Your task to perform on an android device: Search for seafood restaurants on Google Maps Image 0: 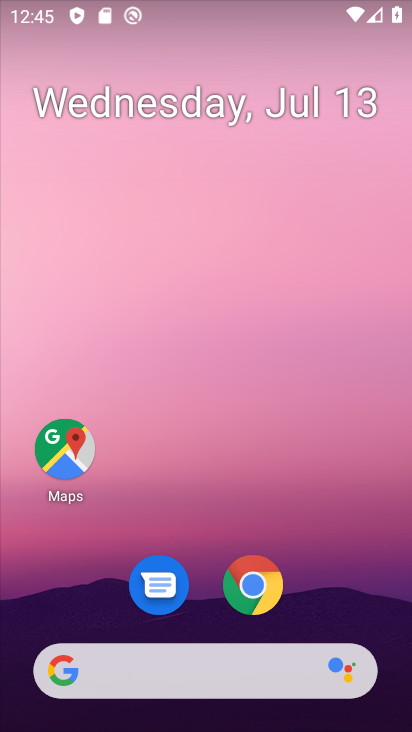
Step 0: click (71, 443)
Your task to perform on an android device: Search for seafood restaurants on Google Maps Image 1: 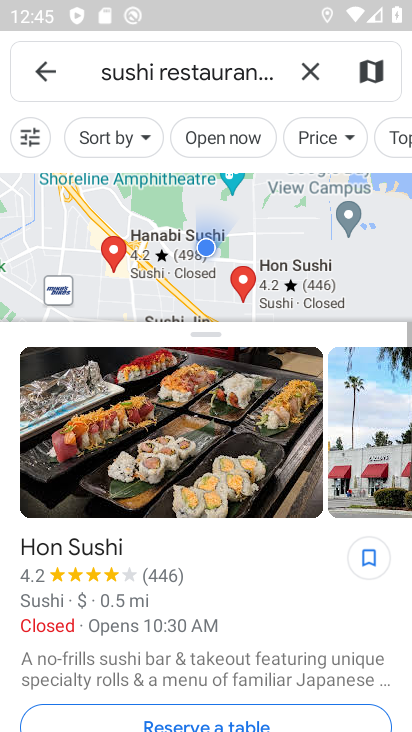
Step 1: click (310, 68)
Your task to perform on an android device: Search for seafood restaurants on Google Maps Image 2: 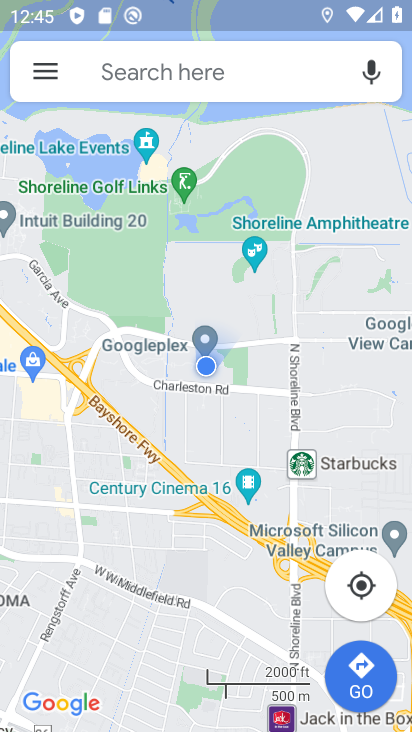
Step 2: click (233, 74)
Your task to perform on an android device: Search for seafood restaurants on Google Maps Image 3: 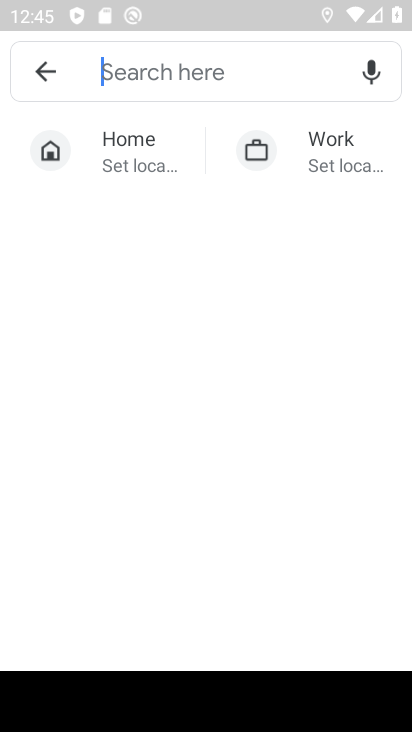
Step 3: type "seafood restaurents"
Your task to perform on an android device: Search for seafood restaurants on Google Maps Image 4: 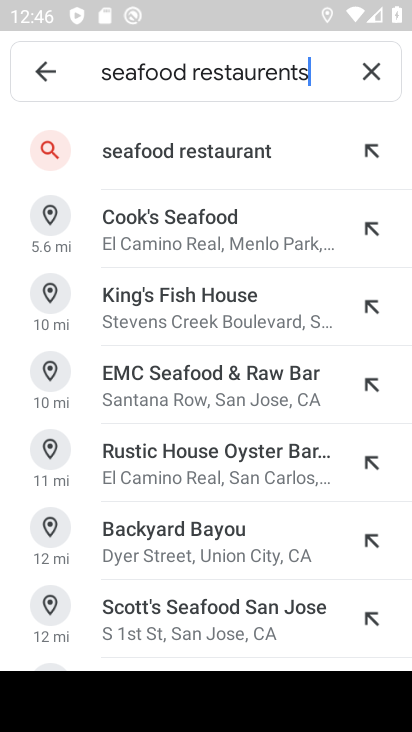
Step 4: click (213, 148)
Your task to perform on an android device: Search for seafood restaurants on Google Maps Image 5: 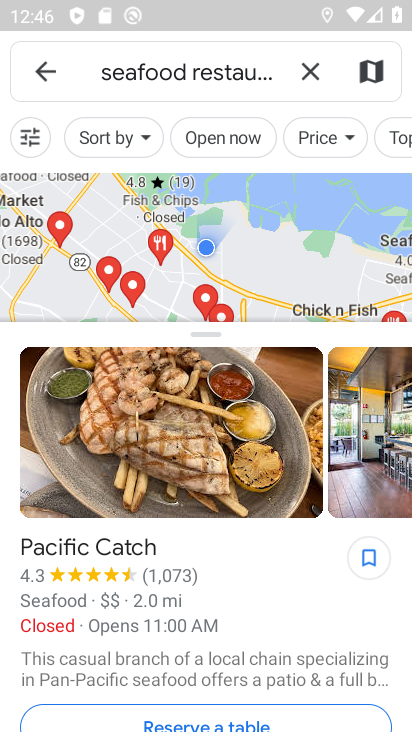
Step 5: task complete